Your task to perform on an android device: Go to settings Image 0: 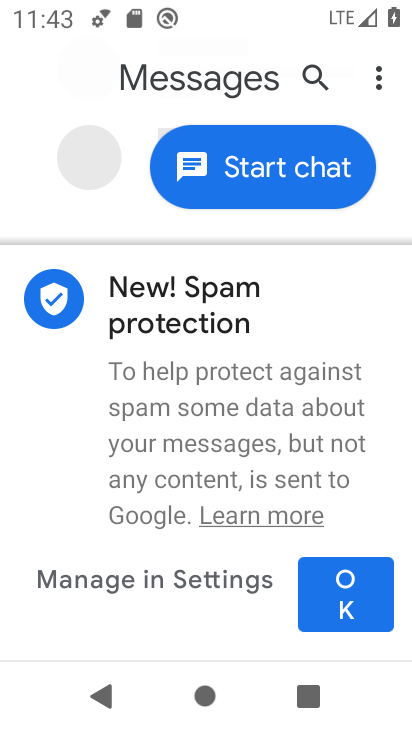
Step 0: press home button
Your task to perform on an android device: Go to settings Image 1: 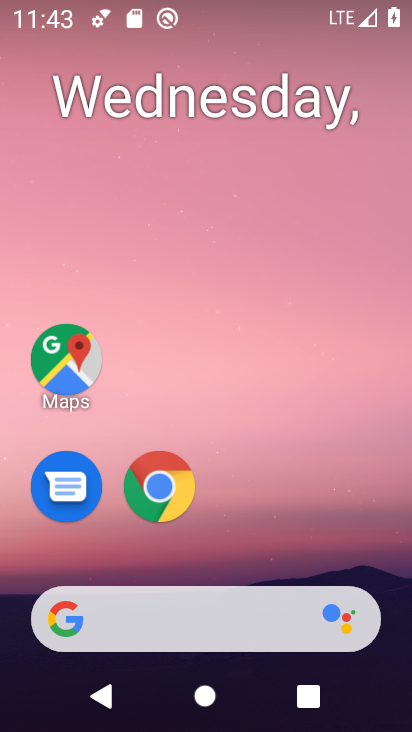
Step 1: drag from (396, 557) to (383, 139)
Your task to perform on an android device: Go to settings Image 2: 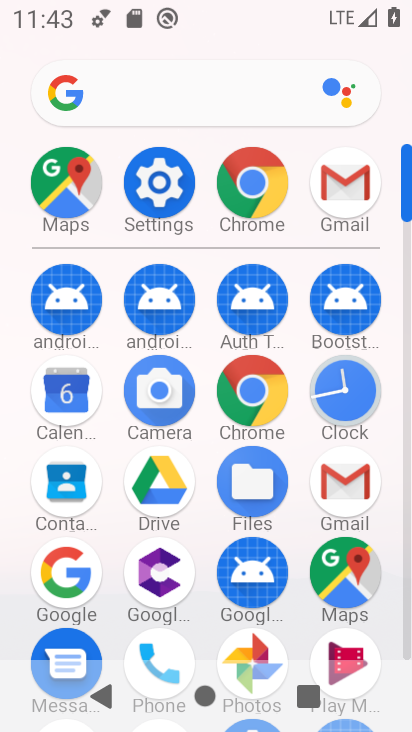
Step 2: click (172, 214)
Your task to perform on an android device: Go to settings Image 3: 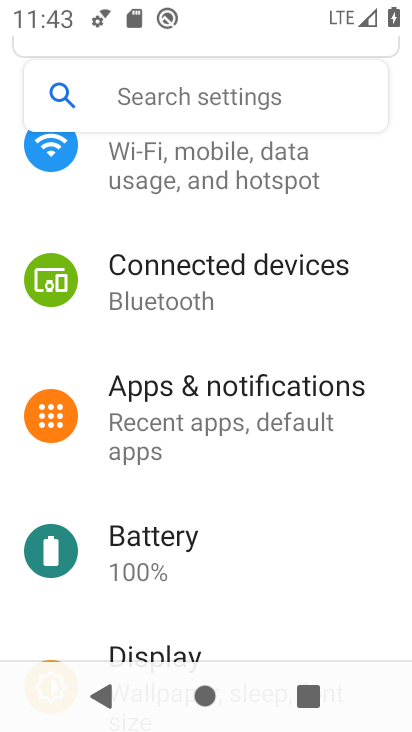
Step 3: task complete